Your task to perform on an android device: Go to privacy settings Image 0: 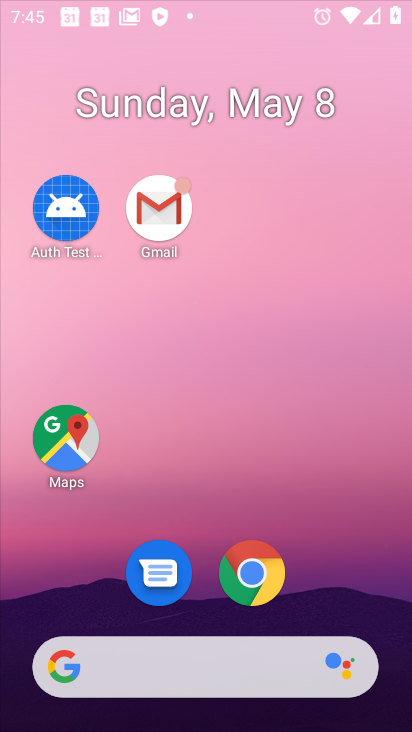
Step 0: click (223, 237)
Your task to perform on an android device: Go to privacy settings Image 1: 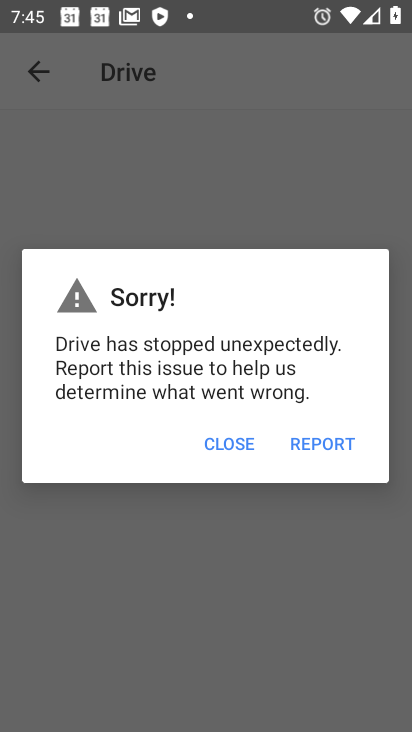
Step 1: click (246, 450)
Your task to perform on an android device: Go to privacy settings Image 2: 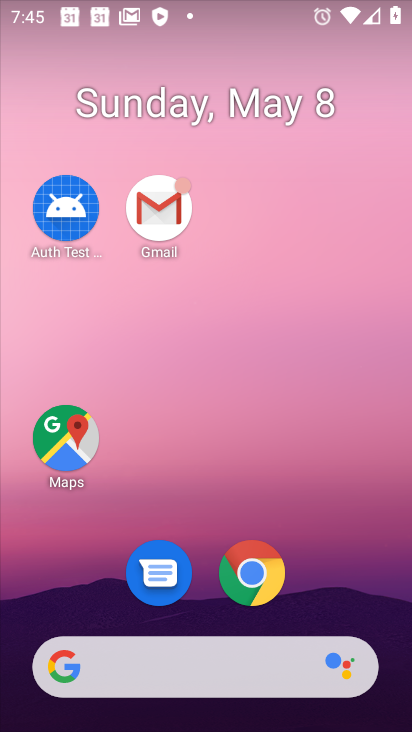
Step 2: drag from (363, 583) to (158, 79)
Your task to perform on an android device: Go to privacy settings Image 3: 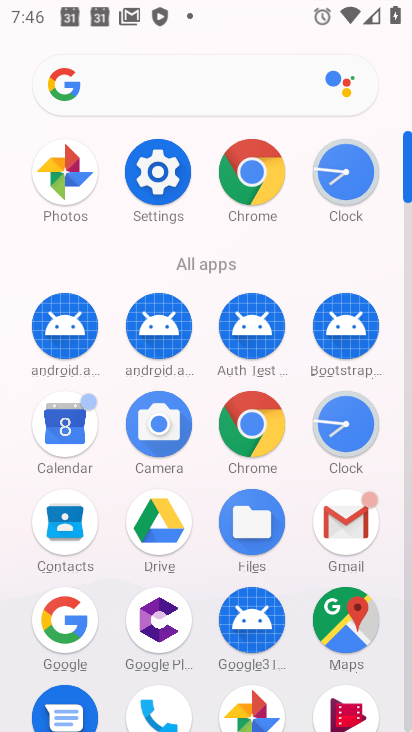
Step 3: click (154, 165)
Your task to perform on an android device: Go to privacy settings Image 4: 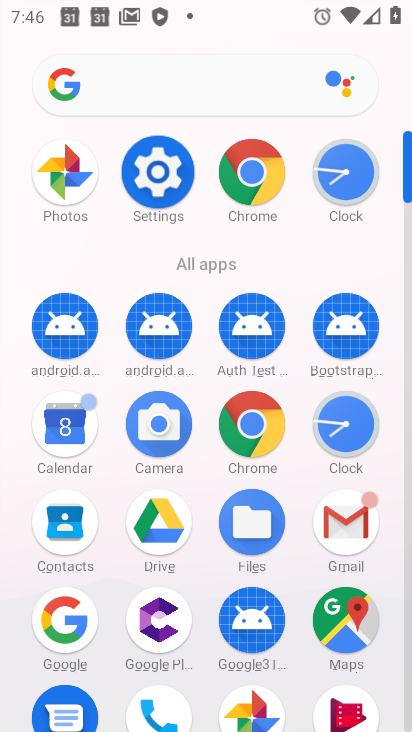
Step 4: click (159, 170)
Your task to perform on an android device: Go to privacy settings Image 5: 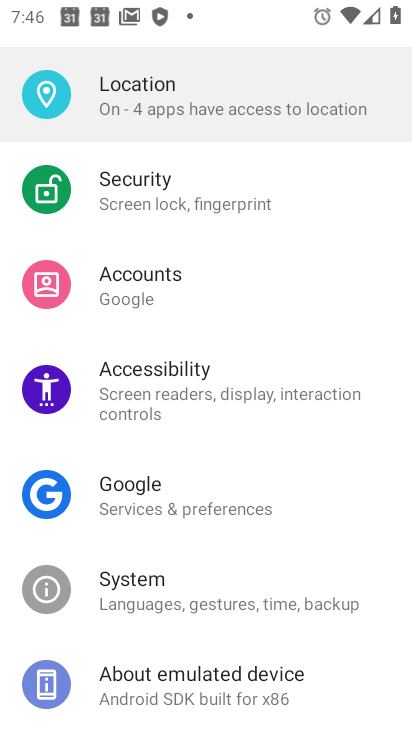
Step 5: click (159, 170)
Your task to perform on an android device: Go to privacy settings Image 6: 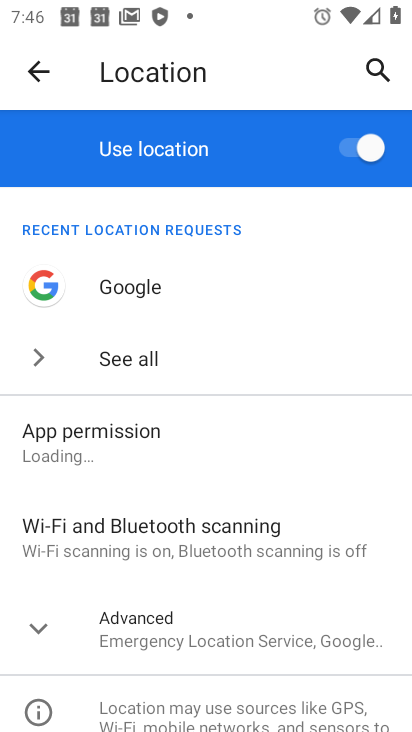
Step 6: click (38, 63)
Your task to perform on an android device: Go to privacy settings Image 7: 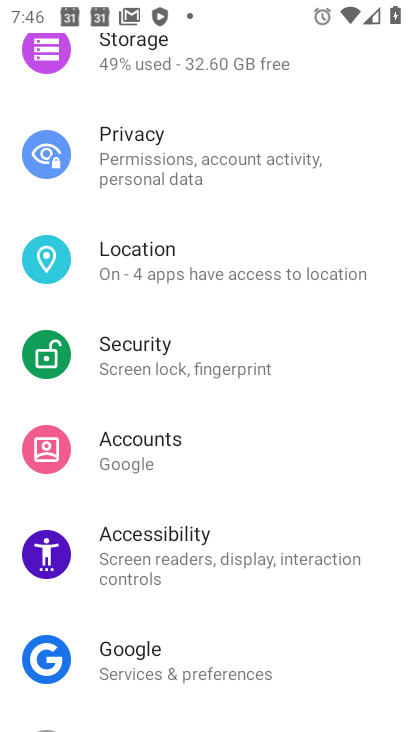
Step 7: click (148, 164)
Your task to perform on an android device: Go to privacy settings Image 8: 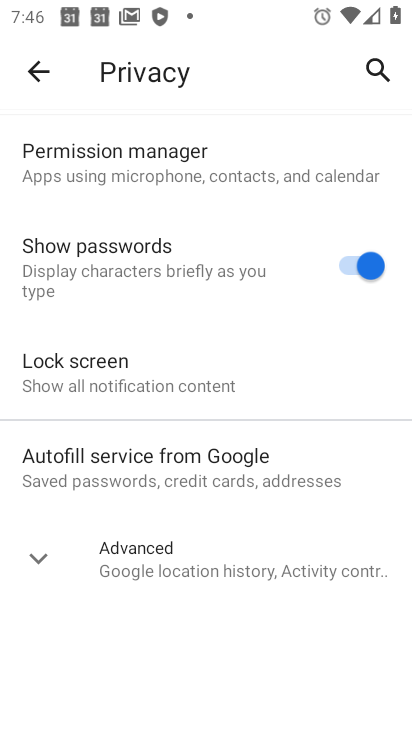
Step 8: click (148, 164)
Your task to perform on an android device: Go to privacy settings Image 9: 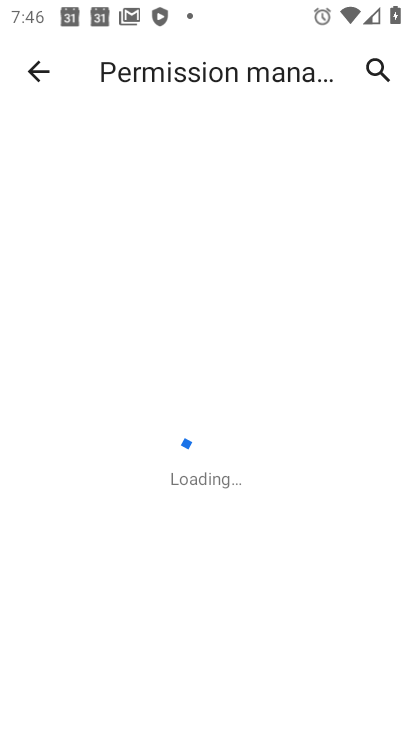
Step 9: click (148, 164)
Your task to perform on an android device: Go to privacy settings Image 10: 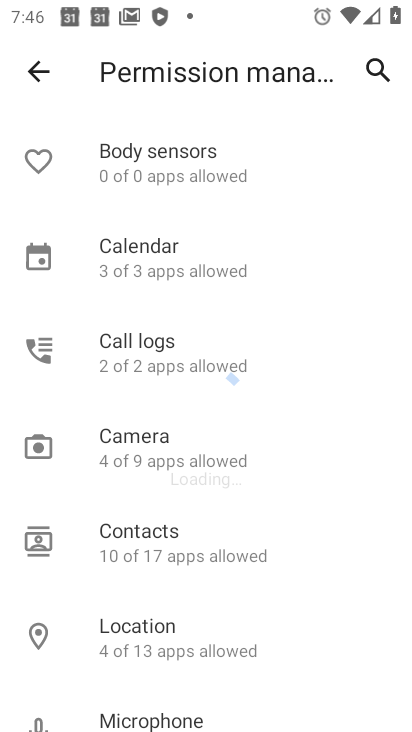
Step 10: click (148, 140)
Your task to perform on an android device: Go to privacy settings Image 11: 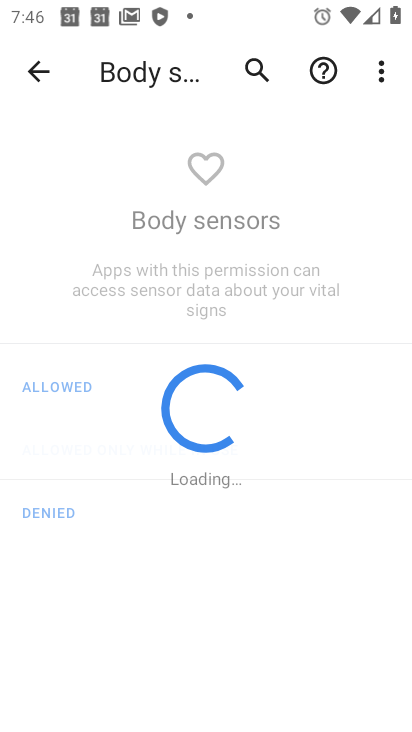
Step 11: task complete